Your task to perform on an android device: turn pop-ups on in chrome Image 0: 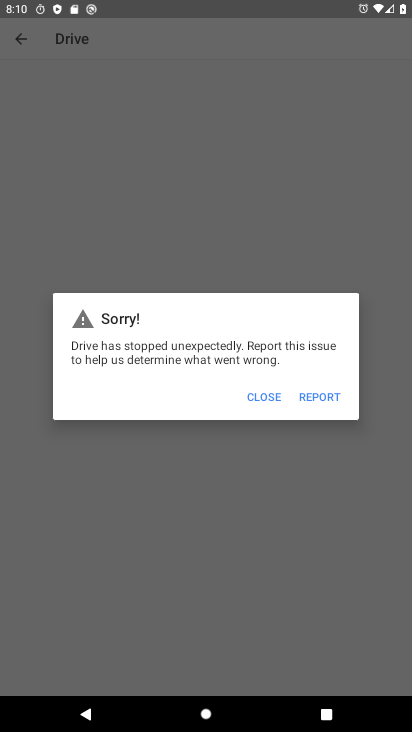
Step 0: press back button
Your task to perform on an android device: turn pop-ups on in chrome Image 1: 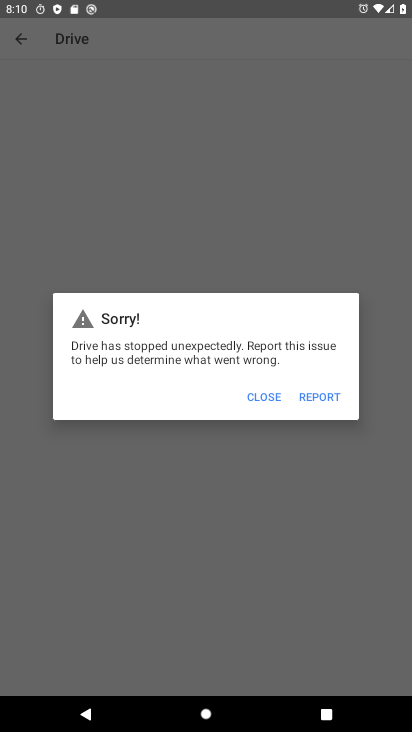
Step 1: press home button
Your task to perform on an android device: turn pop-ups on in chrome Image 2: 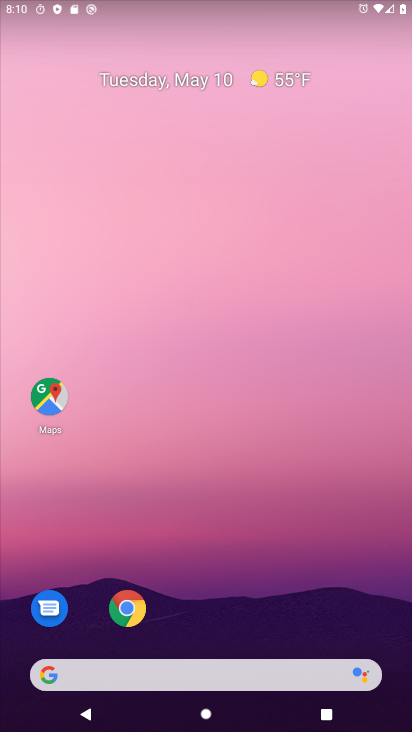
Step 2: click (127, 610)
Your task to perform on an android device: turn pop-ups on in chrome Image 3: 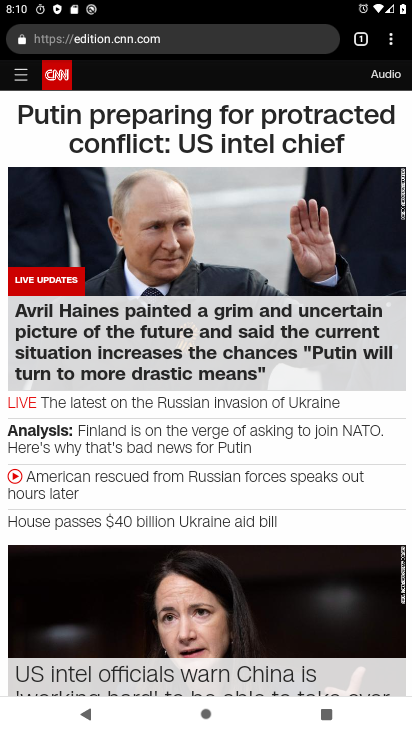
Step 3: click (393, 45)
Your task to perform on an android device: turn pop-ups on in chrome Image 4: 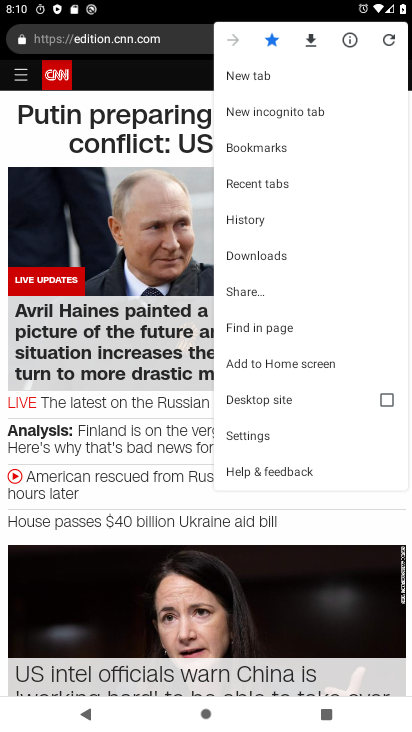
Step 4: click (262, 437)
Your task to perform on an android device: turn pop-ups on in chrome Image 5: 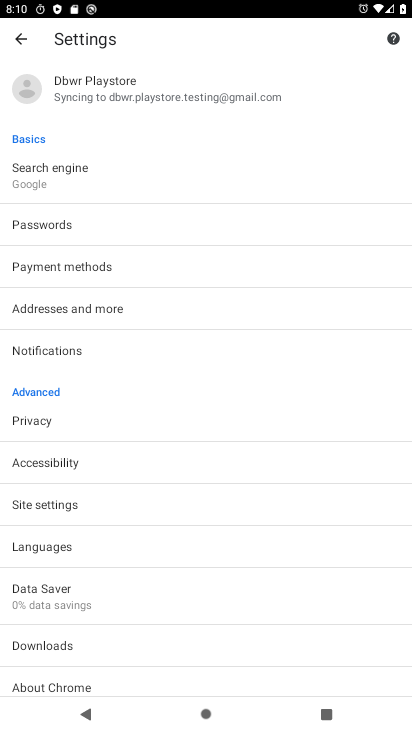
Step 5: click (55, 506)
Your task to perform on an android device: turn pop-ups on in chrome Image 6: 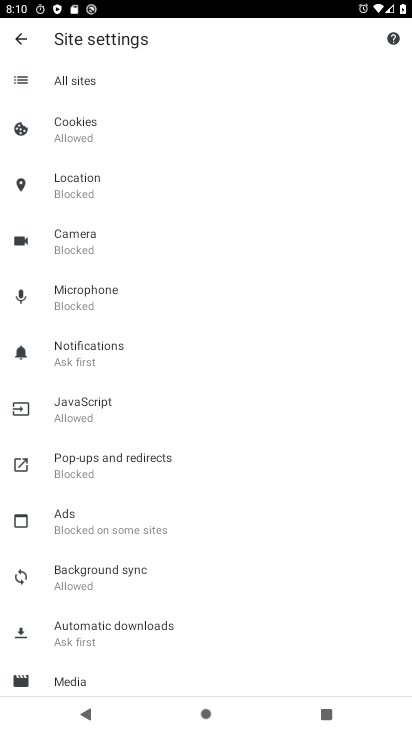
Step 6: click (99, 460)
Your task to perform on an android device: turn pop-ups on in chrome Image 7: 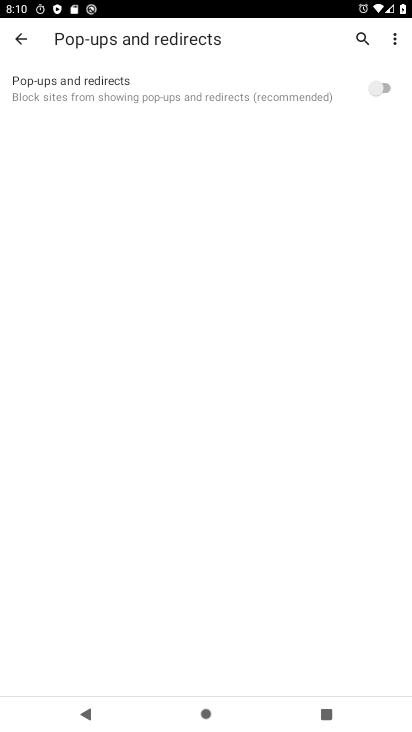
Step 7: click (370, 90)
Your task to perform on an android device: turn pop-ups on in chrome Image 8: 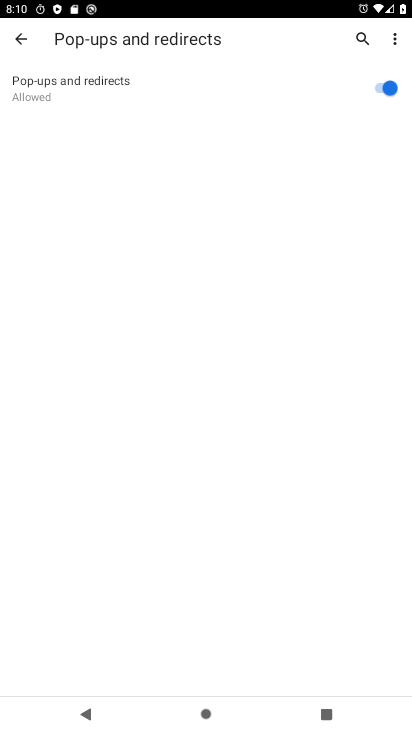
Step 8: task complete